Your task to perform on an android device: Search for Italian restaurants on Maps Image 0: 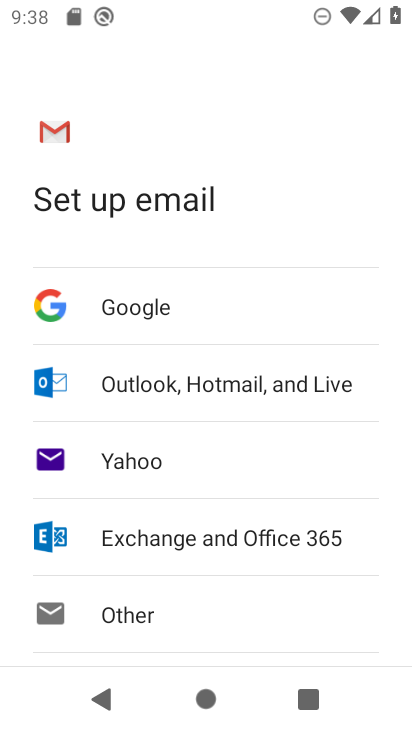
Step 0: press home button
Your task to perform on an android device: Search for Italian restaurants on Maps Image 1: 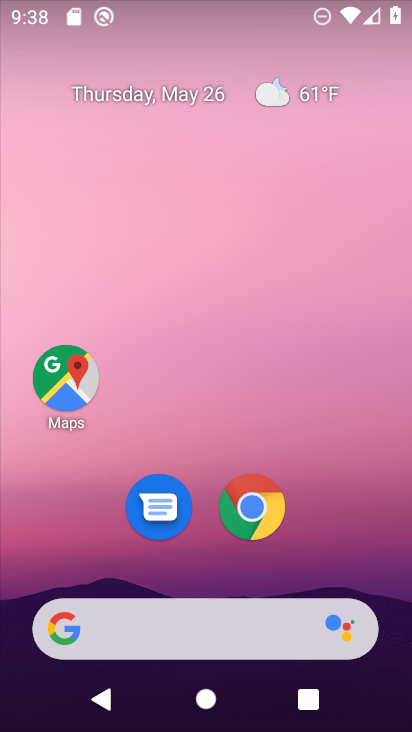
Step 1: click (68, 381)
Your task to perform on an android device: Search for Italian restaurants on Maps Image 2: 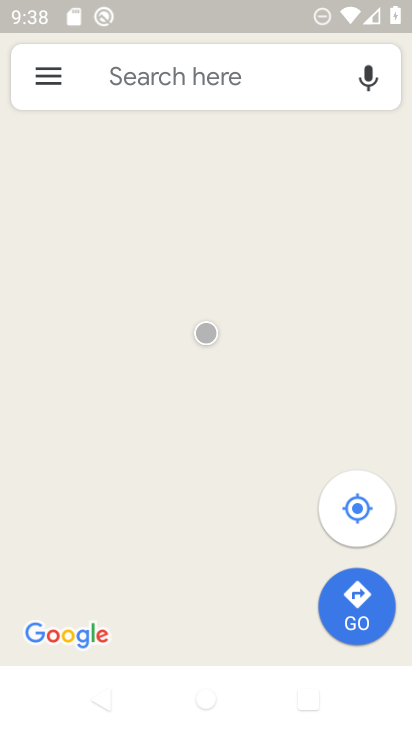
Step 2: click (178, 79)
Your task to perform on an android device: Search for Italian restaurants on Maps Image 3: 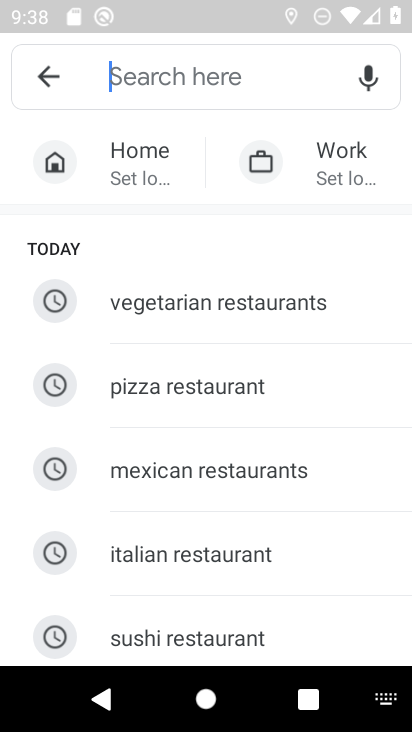
Step 3: type "Italian restaurants"
Your task to perform on an android device: Search for Italian restaurants on Maps Image 4: 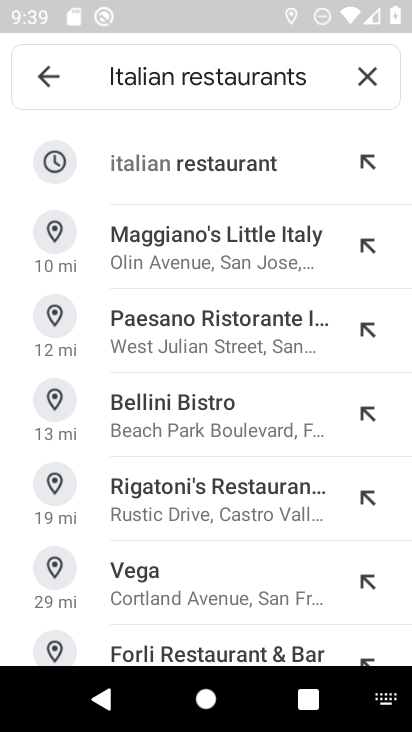
Step 4: click (225, 163)
Your task to perform on an android device: Search for Italian restaurants on Maps Image 5: 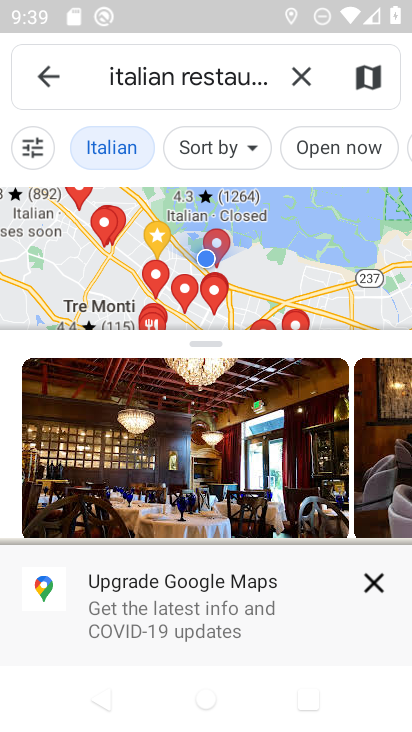
Step 5: click (371, 583)
Your task to perform on an android device: Search for Italian restaurants on Maps Image 6: 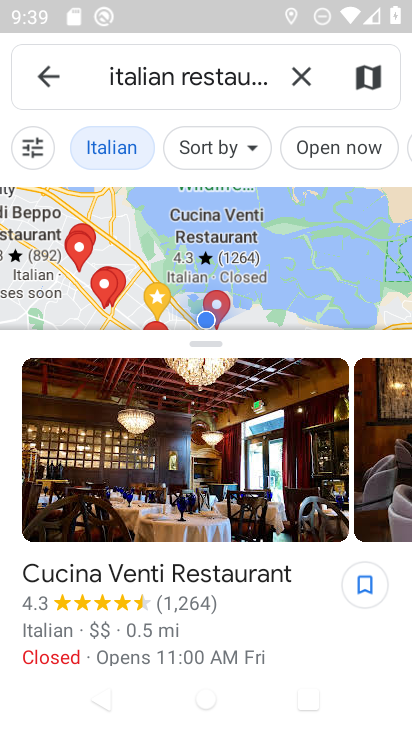
Step 6: task complete